Your task to perform on an android device: Do I have any events today? Image 0: 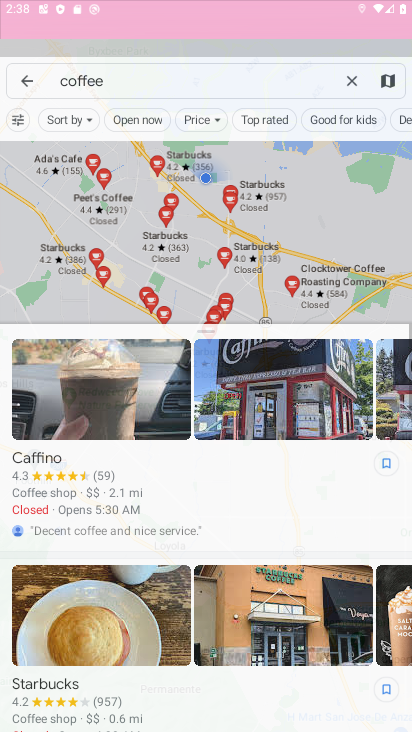
Step 0: press home button
Your task to perform on an android device: Do I have any events today? Image 1: 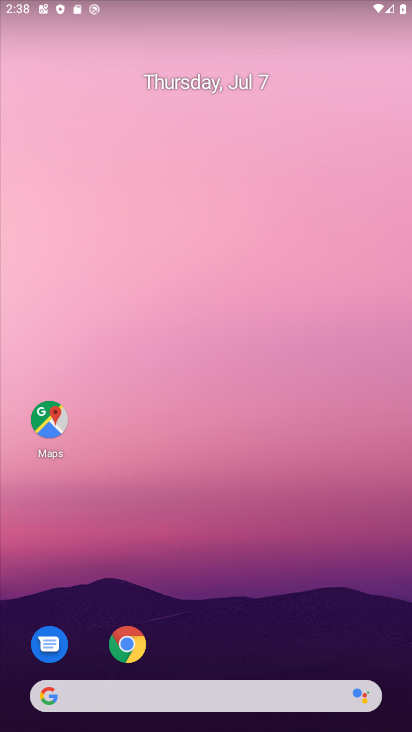
Step 1: drag from (248, 649) to (254, 121)
Your task to perform on an android device: Do I have any events today? Image 2: 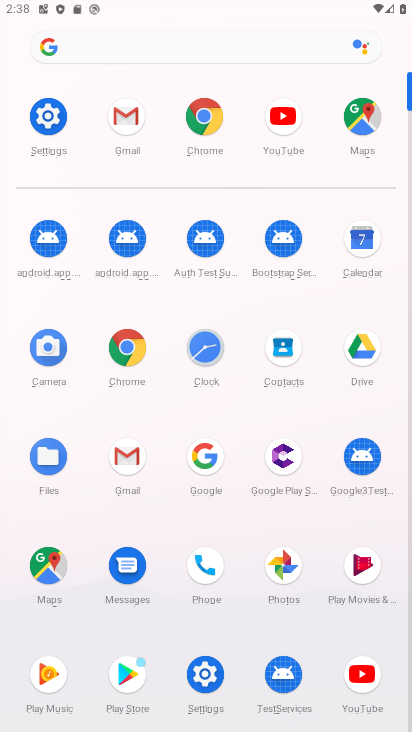
Step 2: click (362, 242)
Your task to perform on an android device: Do I have any events today? Image 3: 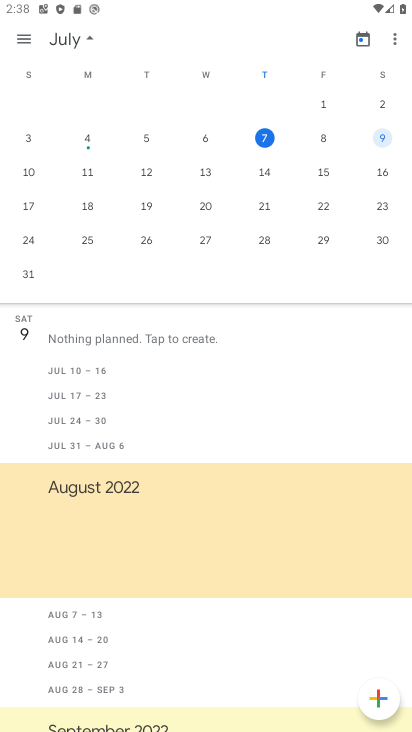
Step 3: click (266, 139)
Your task to perform on an android device: Do I have any events today? Image 4: 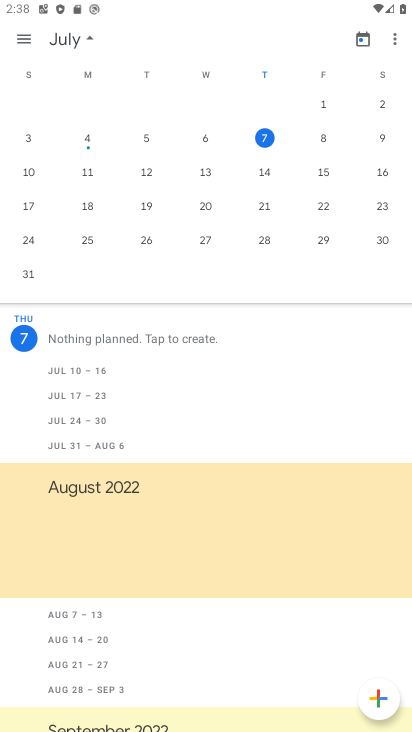
Step 4: task complete